Your task to perform on an android device: turn off improve location accuracy Image 0: 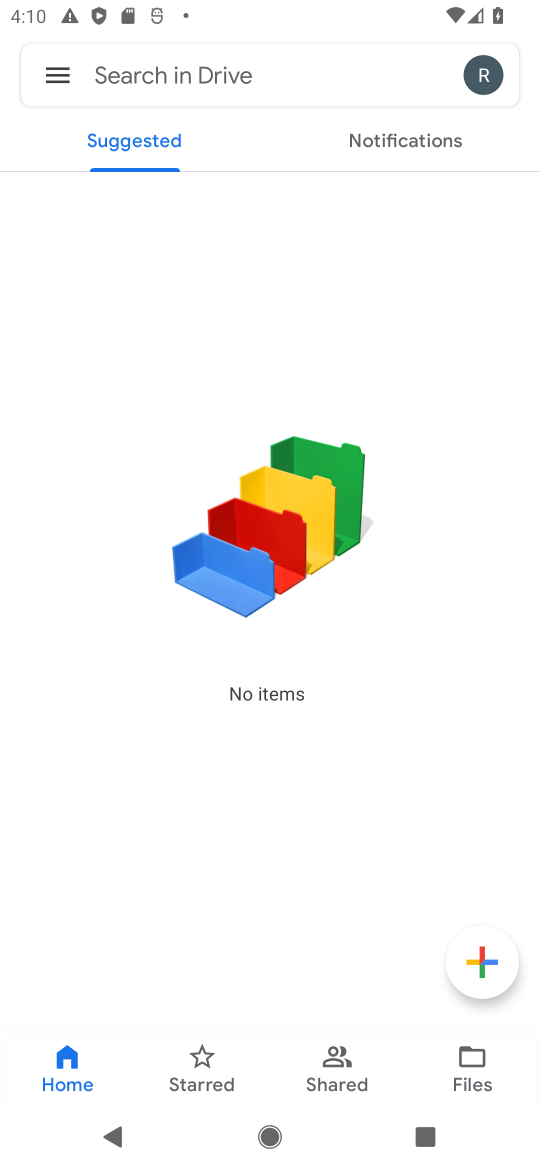
Step 0: press home button
Your task to perform on an android device: turn off improve location accuracy Image 1: 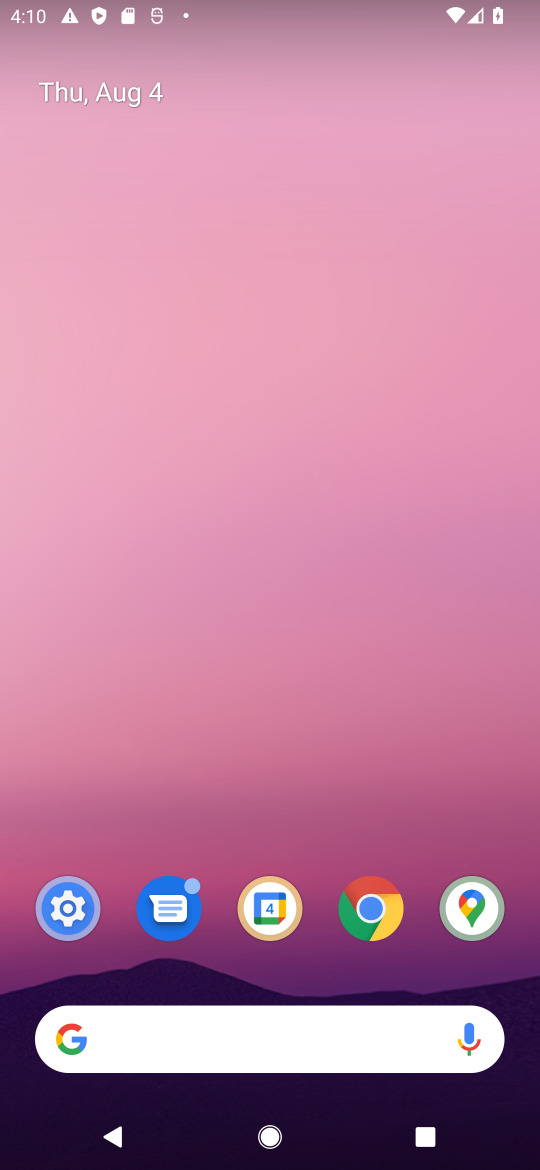
Step 1: drag from (432, 1018) to (429, 3)
Your task to perform on an android device: turn off improve location accuracy Image 2: 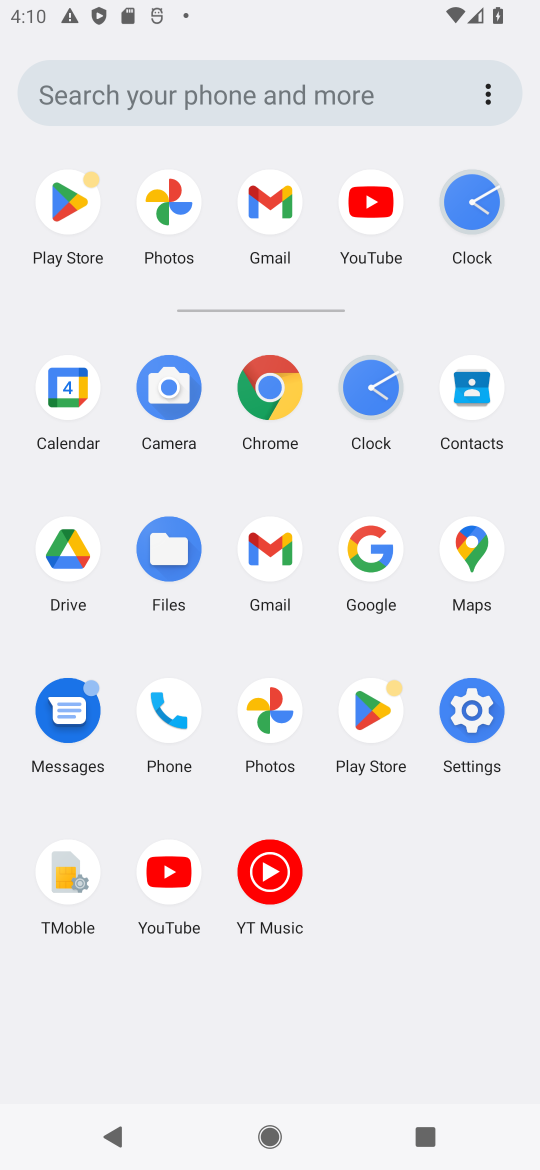
Step 2: click (486, 719)
Your task to perform on an android device: turn off improve location accuracy Image 3: 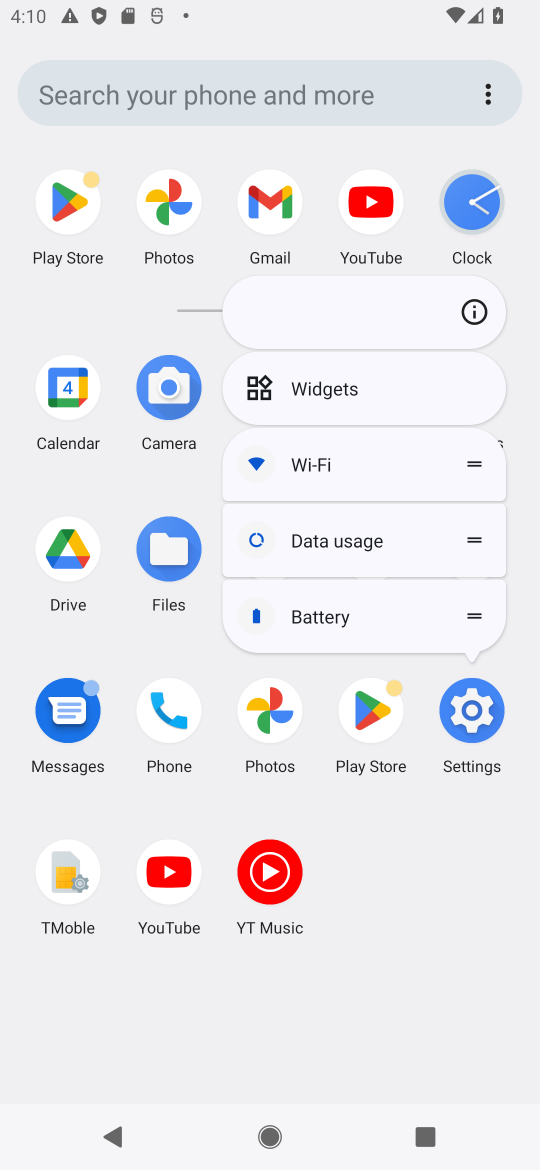
Step 3: click (486, 719)
Your task to perform on an android device: turn off improve location accuracy Image 4: 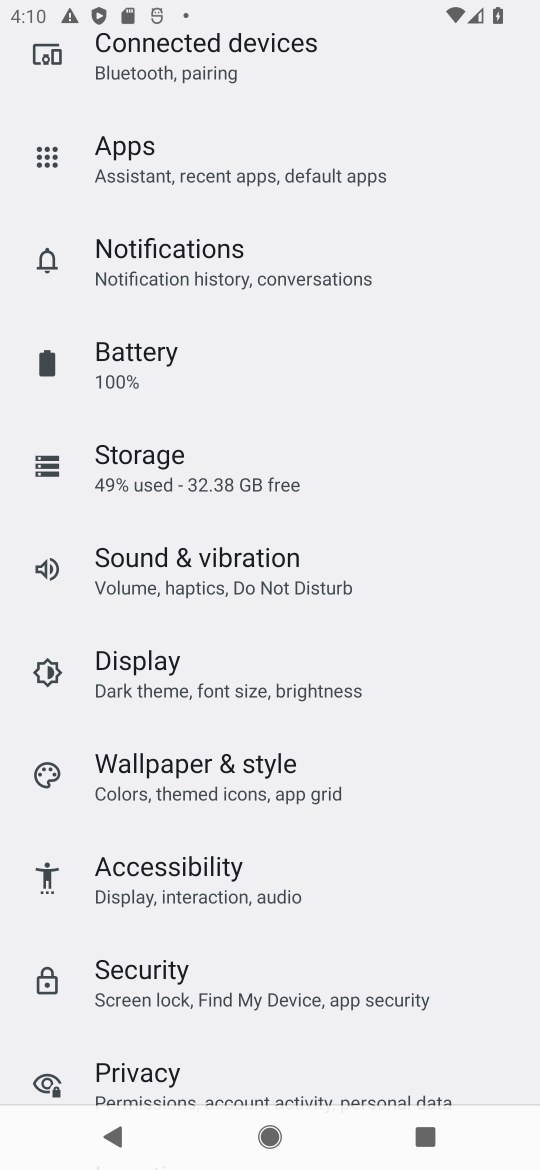
Step 4: drag from (247, 493) to (337, 1022)
Your task to perform on an android device: turn off improve location accuracy Image 5: 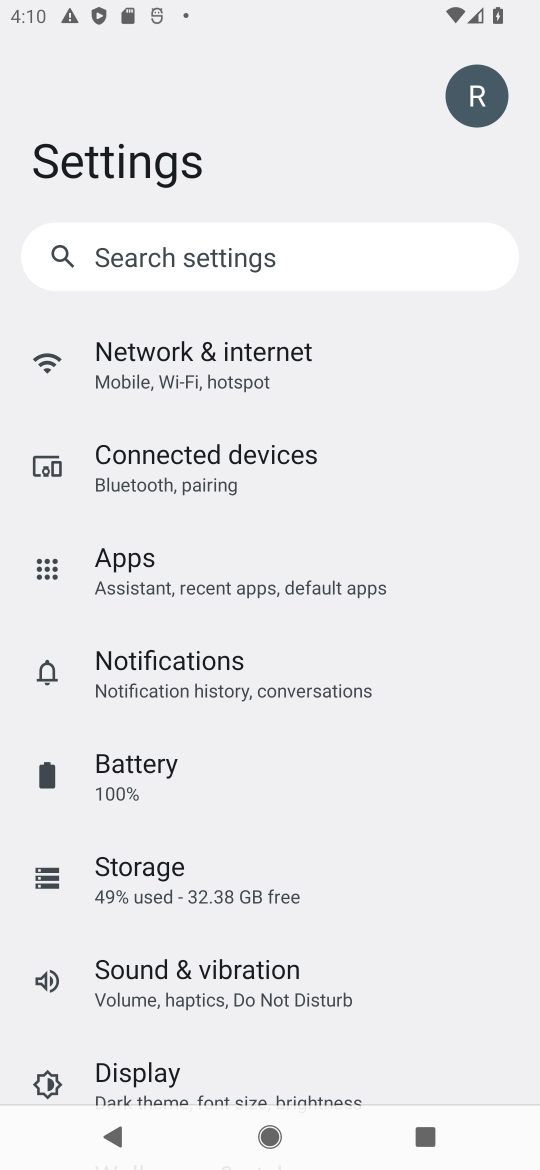
Step 5: drag from (319, 947) to (421, 391)
Your task to perform on an android device: turn off improve location accuracy Image 6: 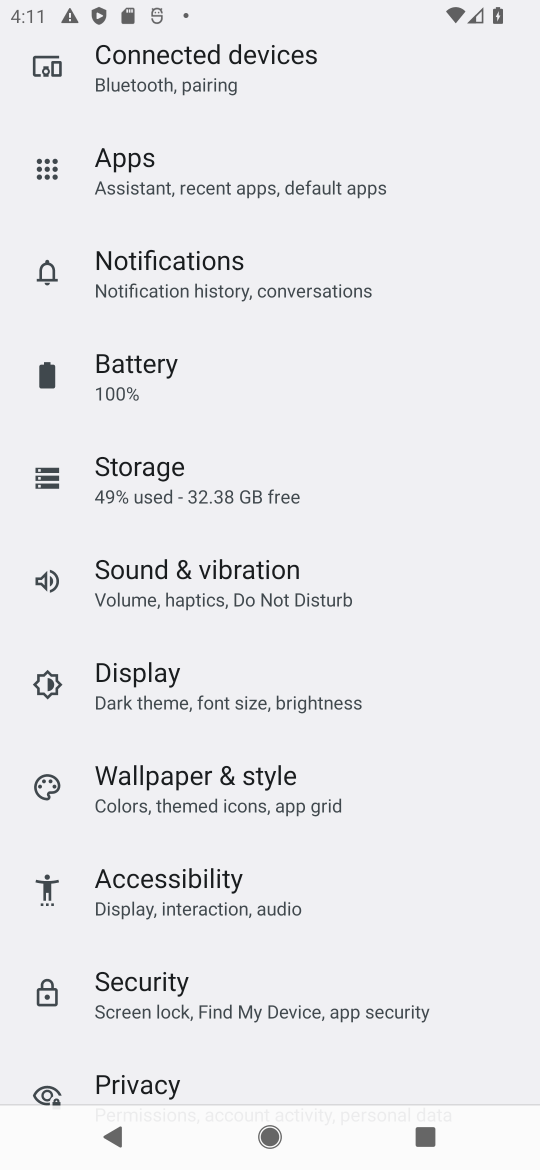
Step 6: drag from (227, 889) to (203, 235)
Your task to perform on an android device: turn off improve location accuracy Image 7: 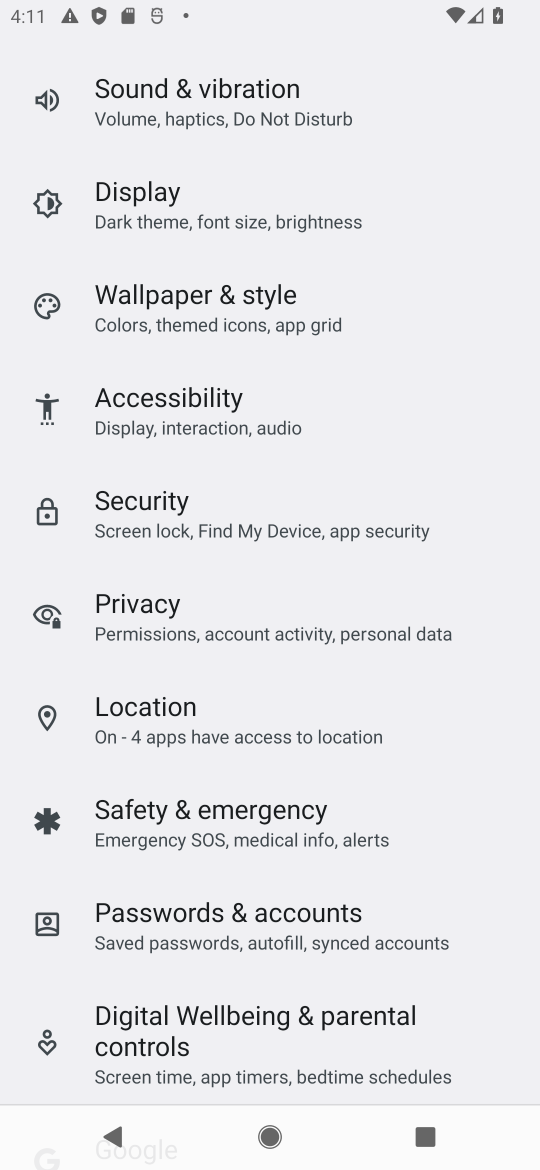
Step 7: drag from (187, 533) to (272, 830)
Your task to perform on an android device: turn off improve location accuracy Image 8: 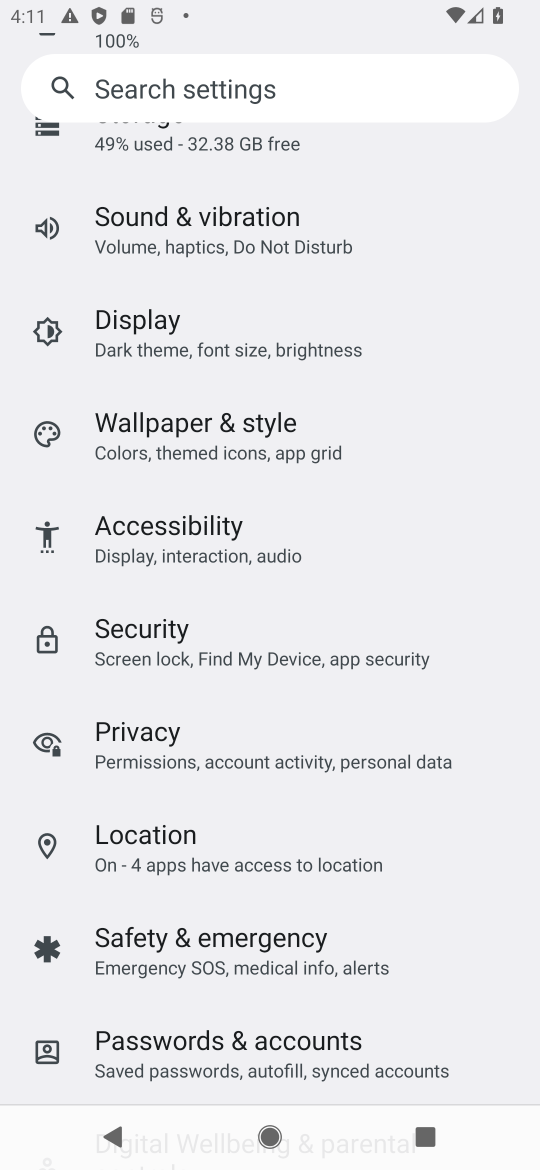
Step 8: click (102, 833)
Your task to perform on an android device: turn off improve location accuracy Image 9: 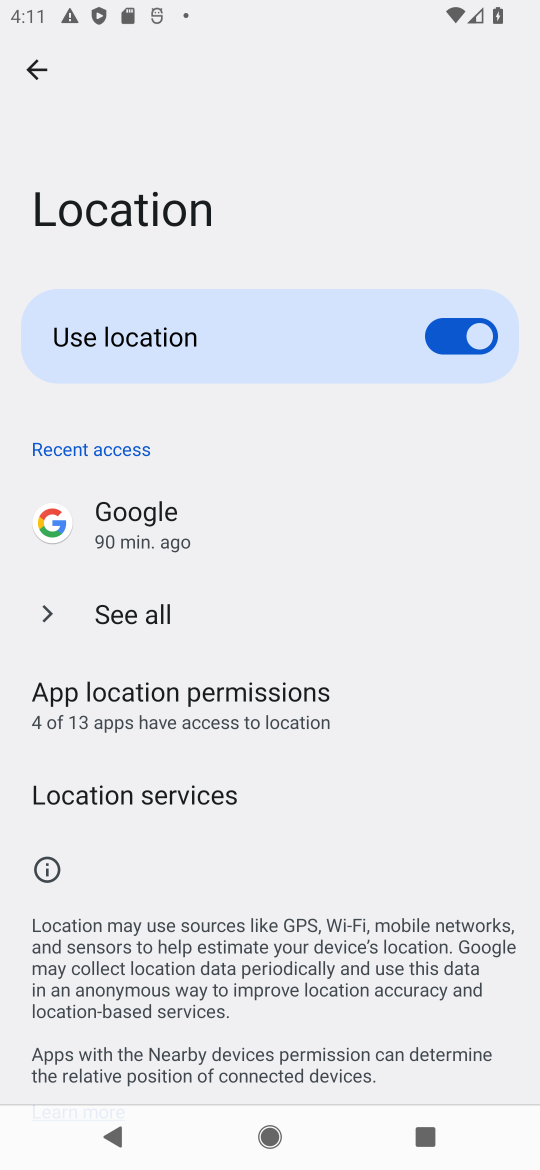
Step 9: task complete